Your task to perform on an android device: Open wifi settings Image 0: 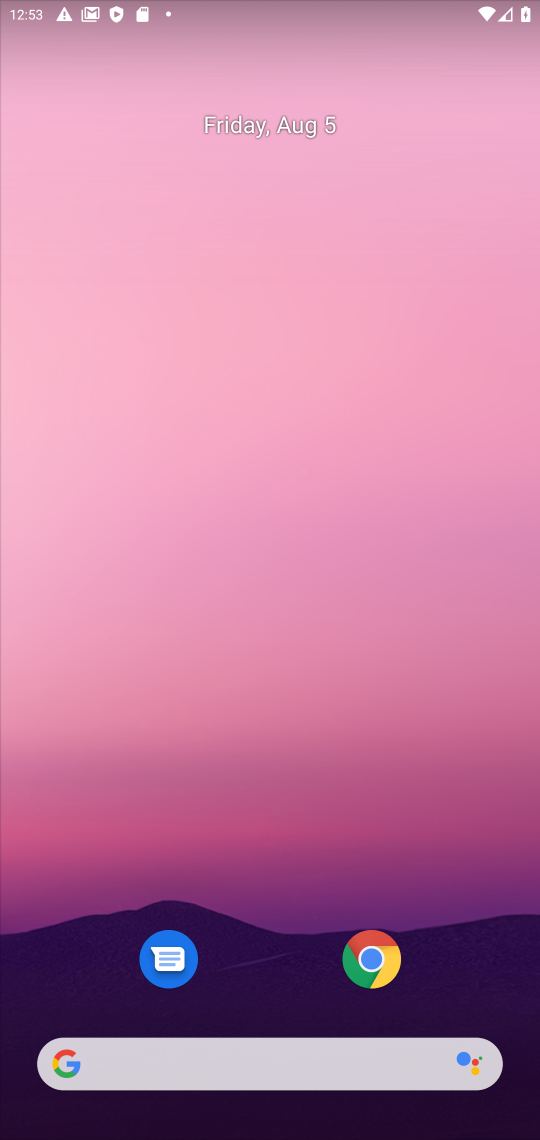
Step 0: drag from (194, 1025) to (242, 79)
Your task to perform on an android device: Open wifi settings Image 1: 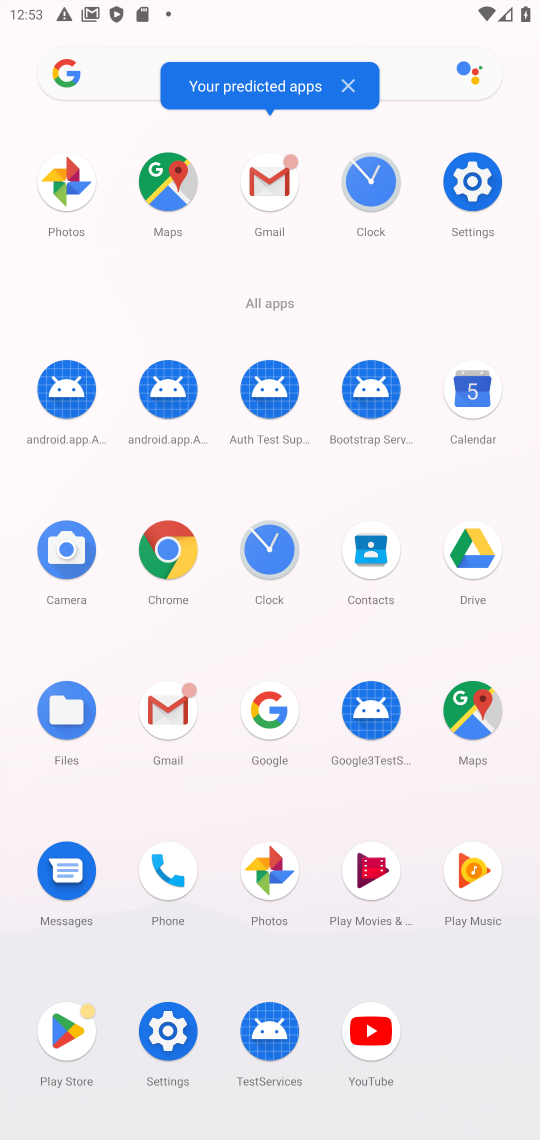
Step 1: click (446, 195)
Your task to perform on an android device: Open wifi settings Image 2: 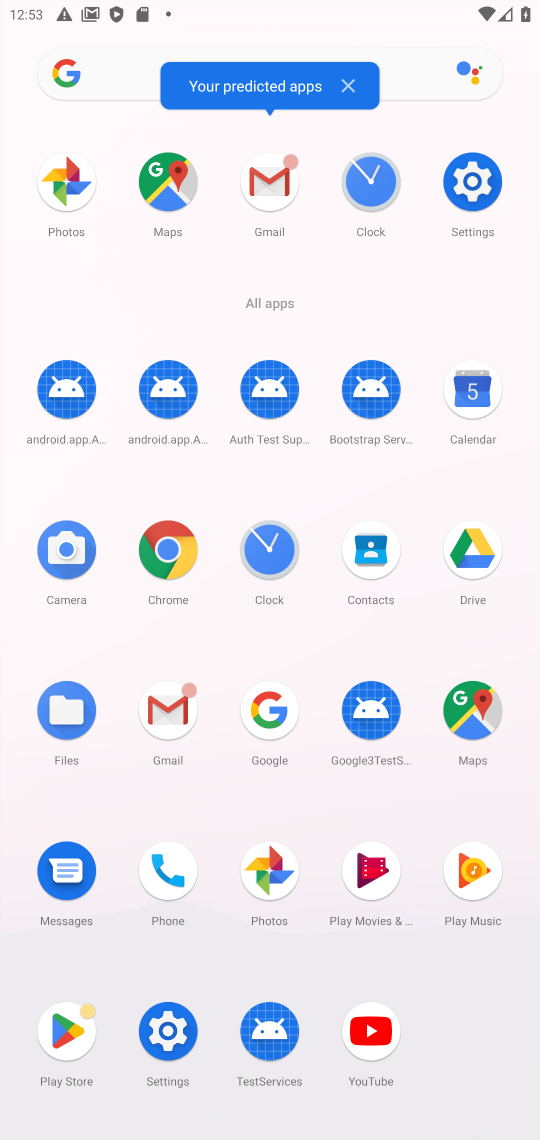
Step 2: click (446, 195)
Your task to perform on an android device: Open wifi settings Image 3: 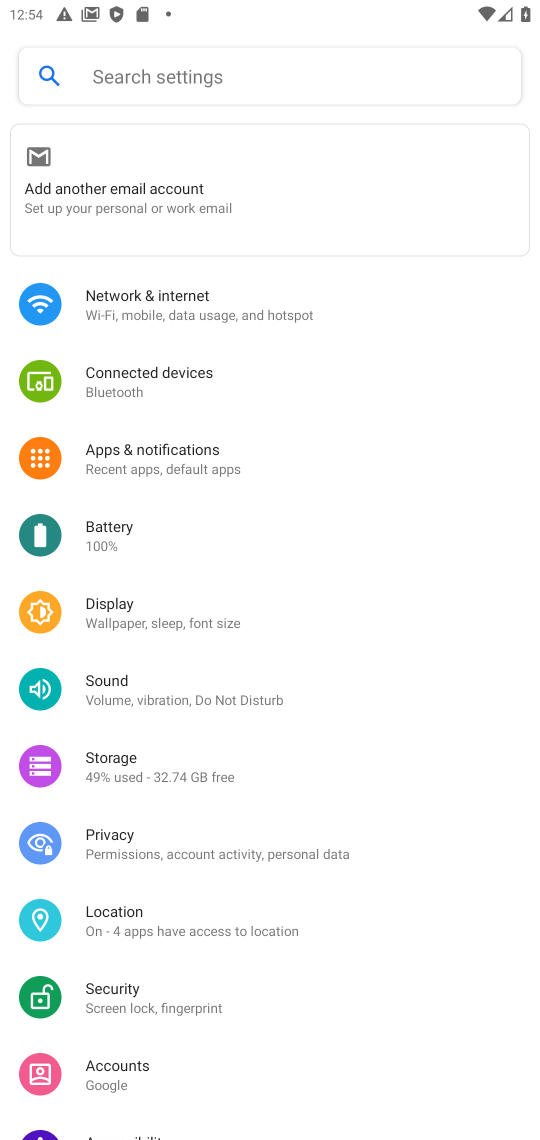
Step 3: click (239, 288)
Your task to perform on an android device: Open wifi settings Image 4: 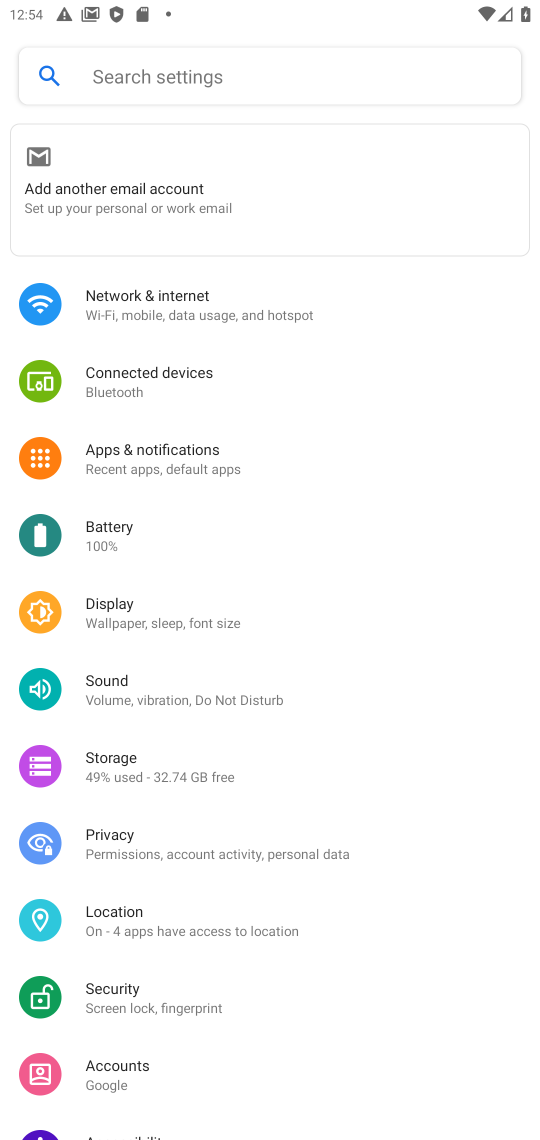
Step 4: click (239, 288)
Your task to perform on an android device: Open wifi settings Image 5: 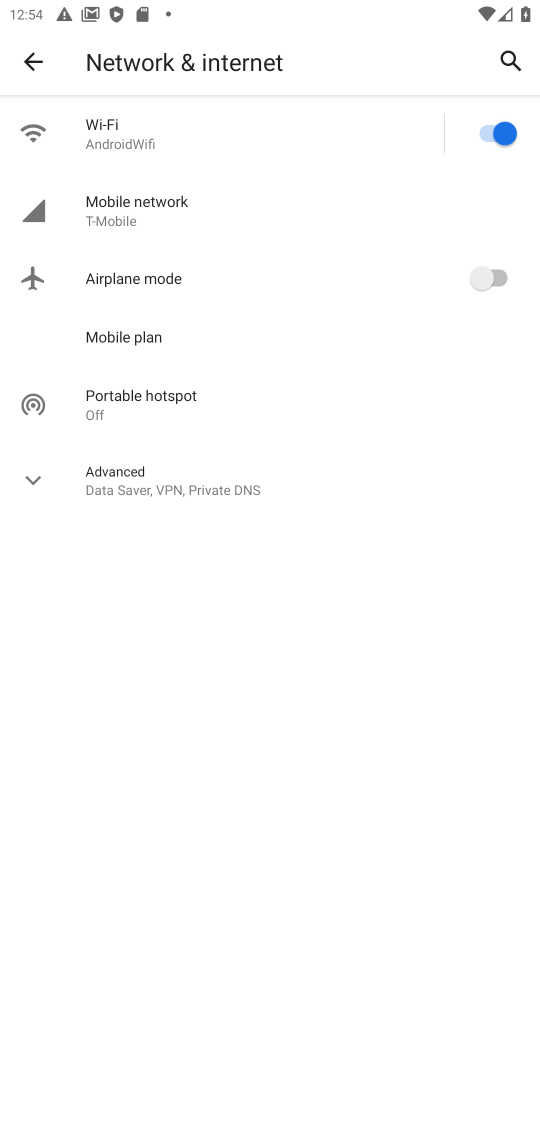
Step 5: click (301, 130)
Your task to perform on an android device: Open wifi settings Image 6: 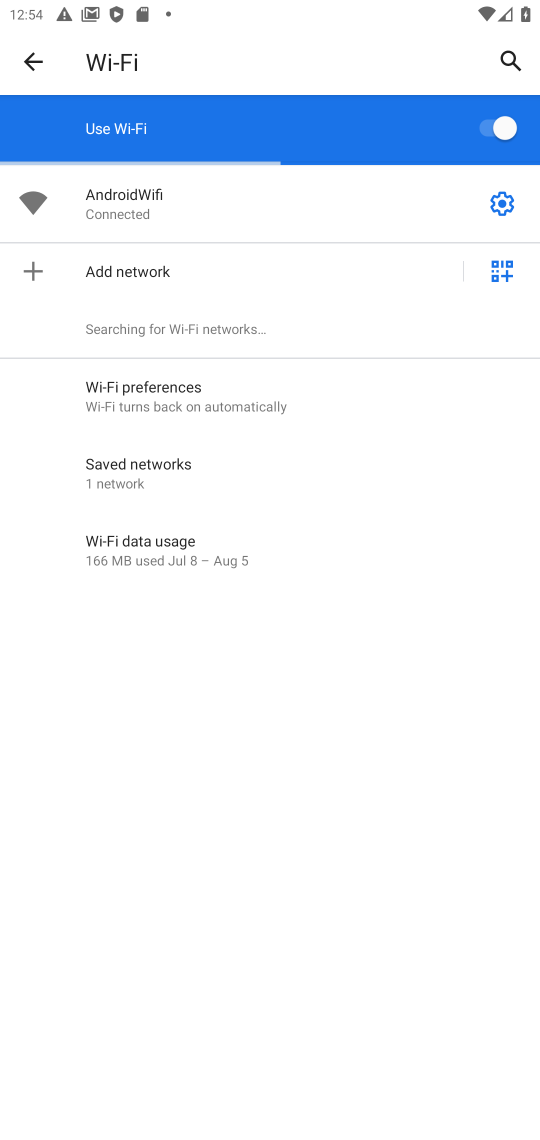
Step 6: click (505, 191)
Your task to perform on an android device: Open wifi settings Image 7: 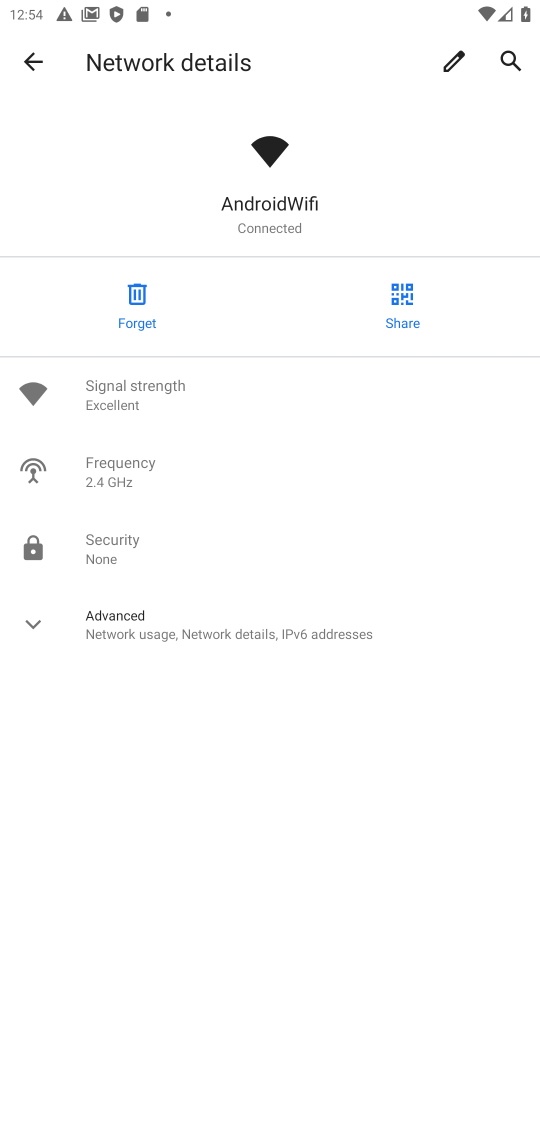
Step 7: task complete